Your task to perform on an android device: Open the web browser Image 0: 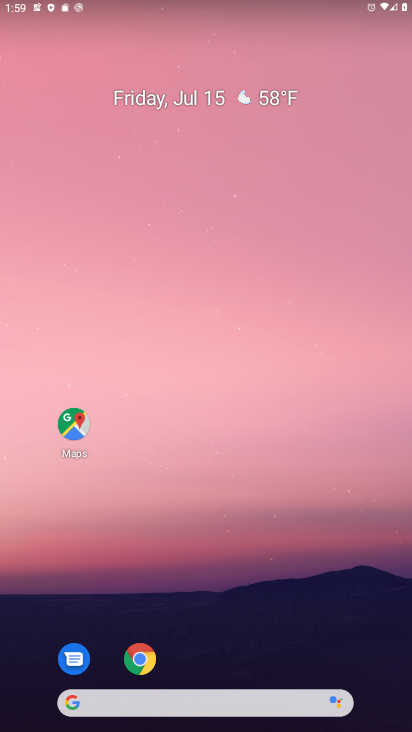
Step 0: click (143, 659)
Your task to perform on an android device: Open the web browser Image 1: 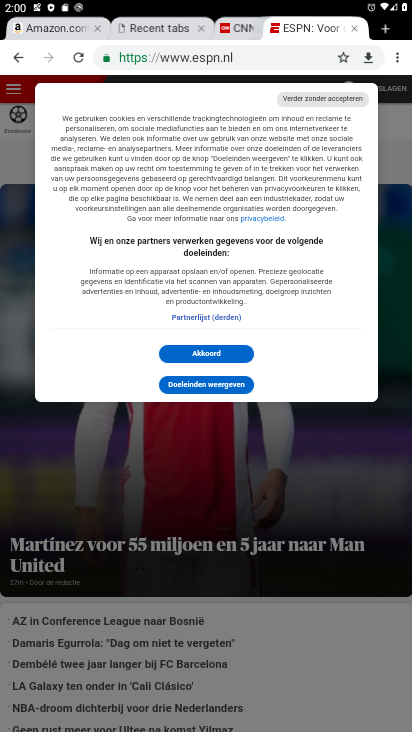
Step 1: task complete